Your task to perform on an android device: turn notification dots on Image 0: 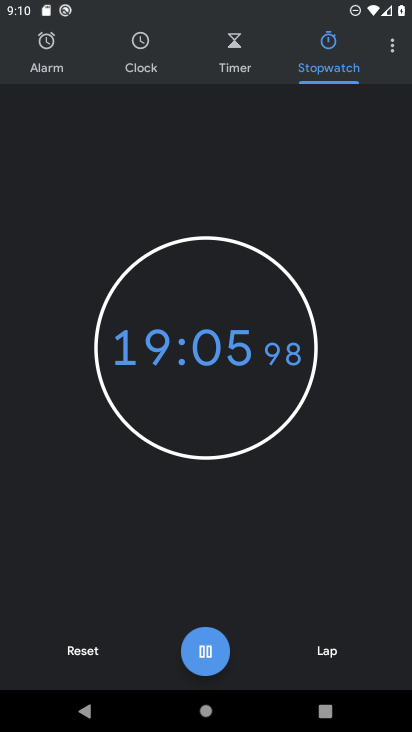
Step 0: press home button
Your task to perform on an android device: turn notification dots on Image 1: 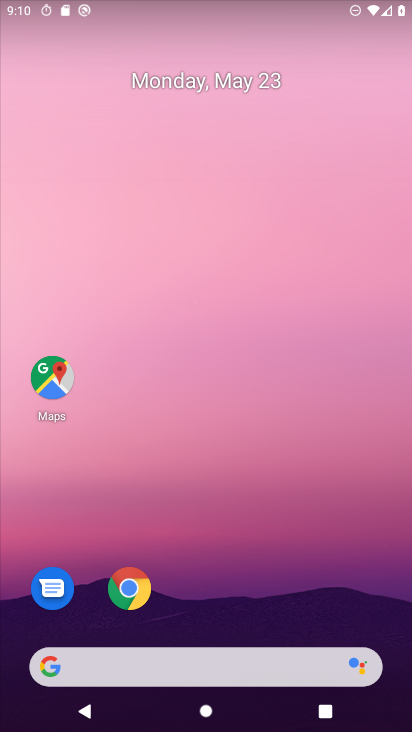
Step 1: drag from (373, 571) to (323, 250)
Your task to perform on an android device: turn notification dots on Image 2: 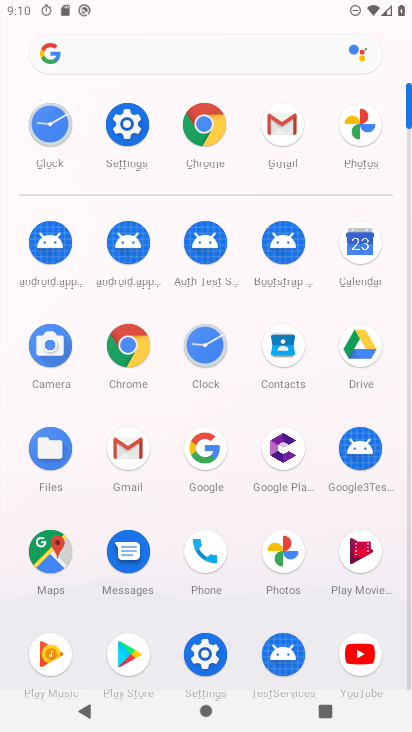
Step 2: click (135, 120)
Your task to perform on an android device: turn notification dots on Image 3: 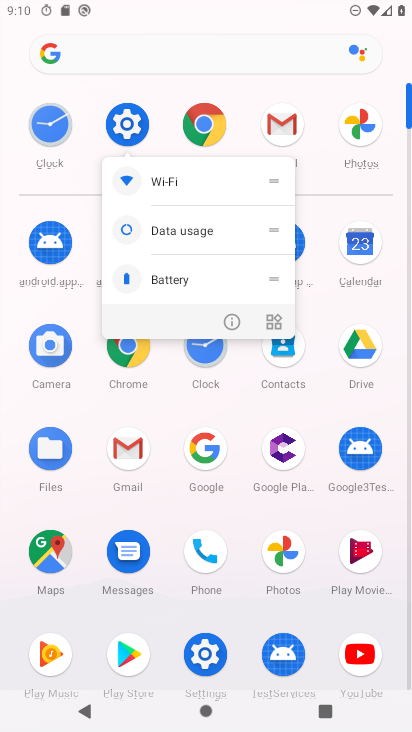
Step 3: click (125, 113)
Your task to perform on an android device: turn notification dots on Image 4: 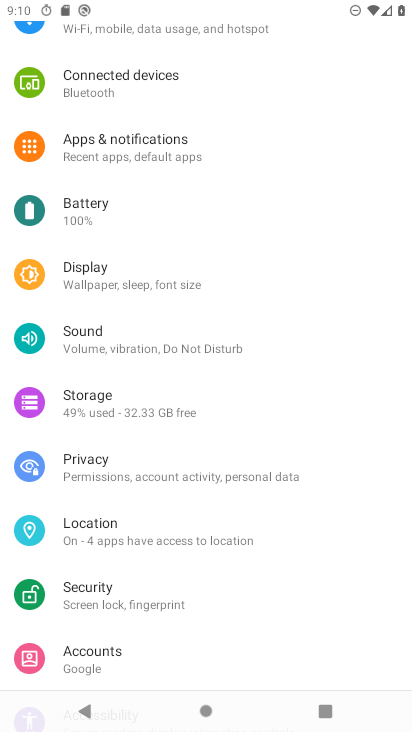
Step 4: click (162, 147)
Your task to perform on an android device: turn notification dots on Image 5: 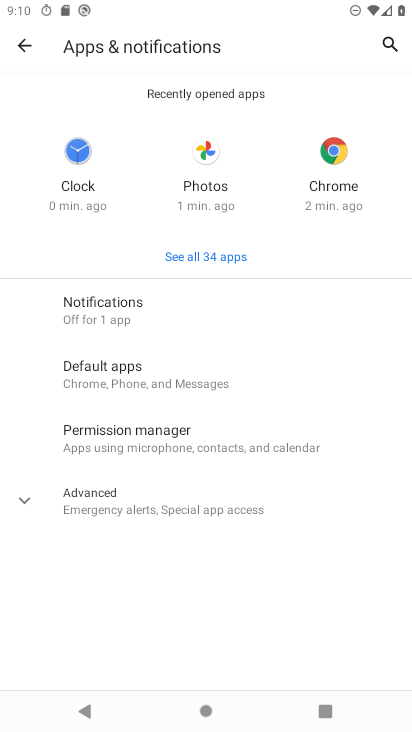
Step 5: click (126, 305)
Your task to perform on an android device: turn notification dots on Image 6: 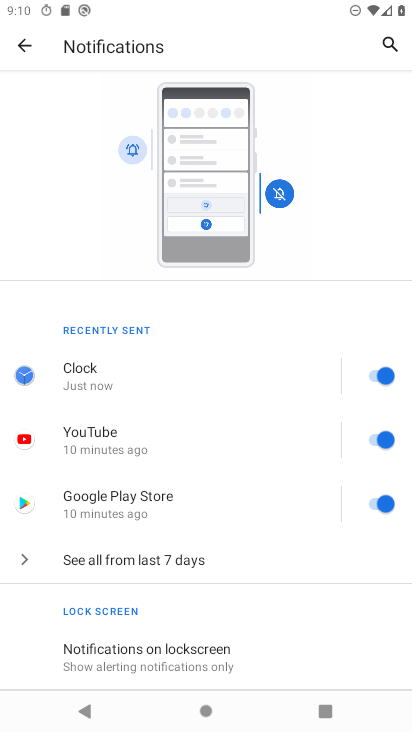
Step 6: drag from (304, 656) to (233, 231)
Your task to perform on an android device: turn notification dots on Image 7: 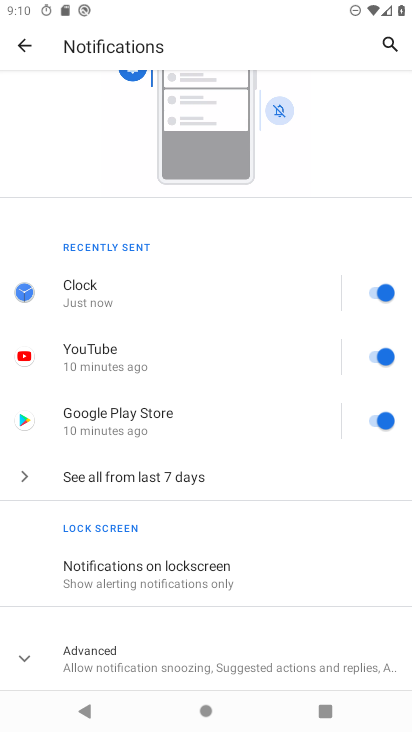
Step 7: click (33, 652)
Your task to perform on an android device: turn notification dots on Image 8: 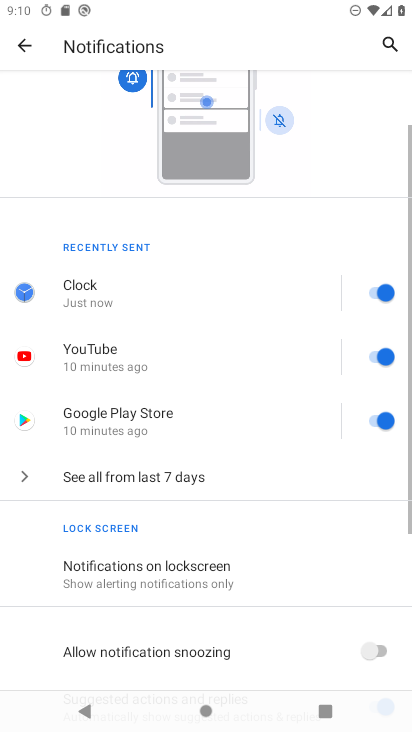
Step 8: drag from (289, 605) to (293, 258)
Your task to perform on an android device: turn notification dots on Image 9: 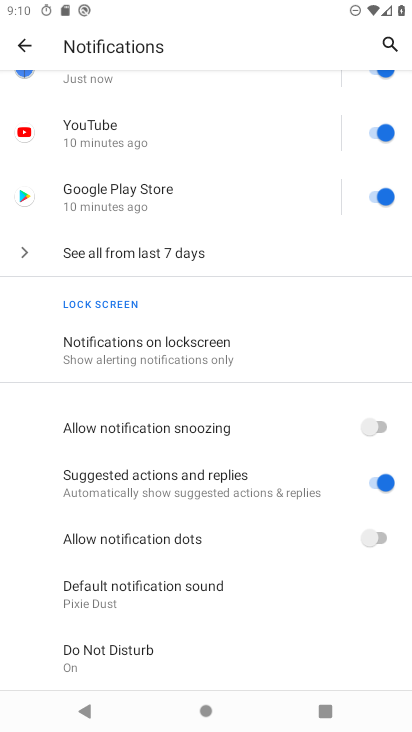
Step 9: click (385, 535)
Your task to perform on an android device: turn notification dots on Image 10: 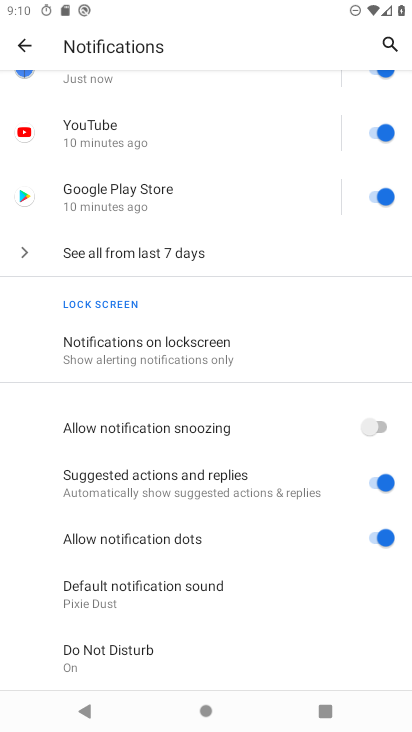
Step 10: task complete